Your task to perform on an android device: find photos in the google photos app Image 0: 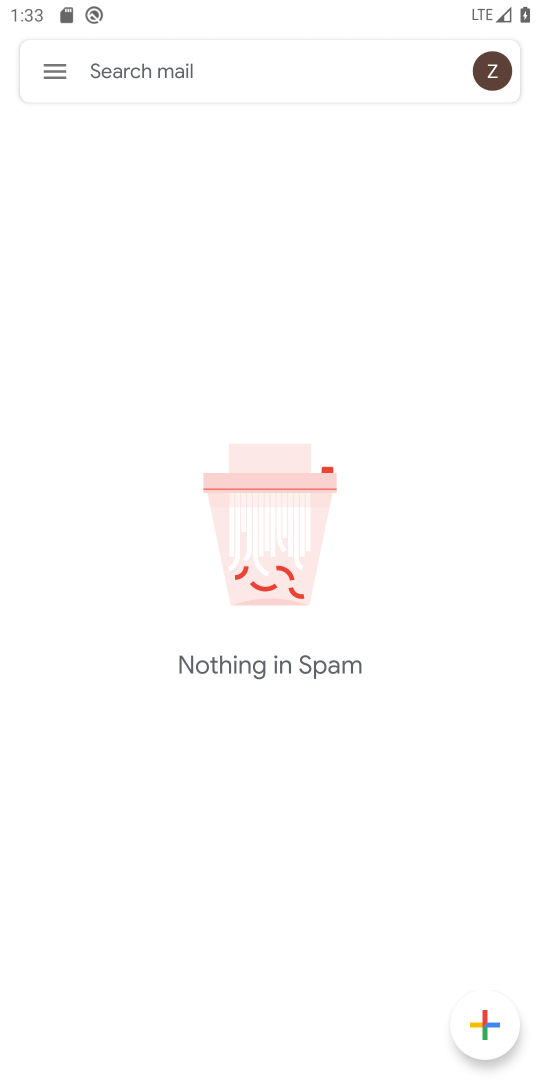
Step 0: press home button
Your task to perform on an android device: find photos in the google photos app Image 1: 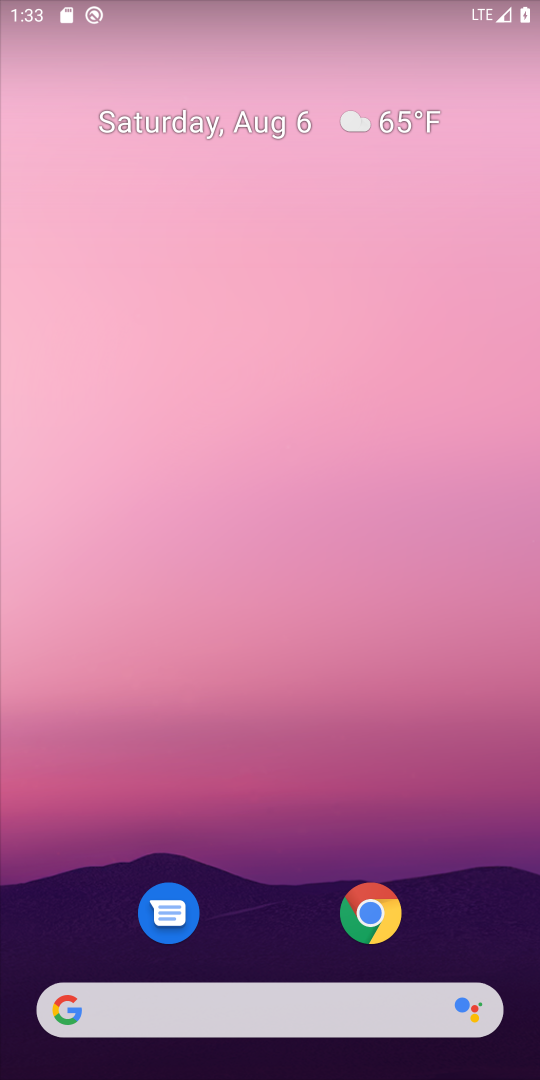
Step 1: drag from (411, 938) to (469, 232)
Your task to perform on an android device: find photos in the google photos app Image 2: 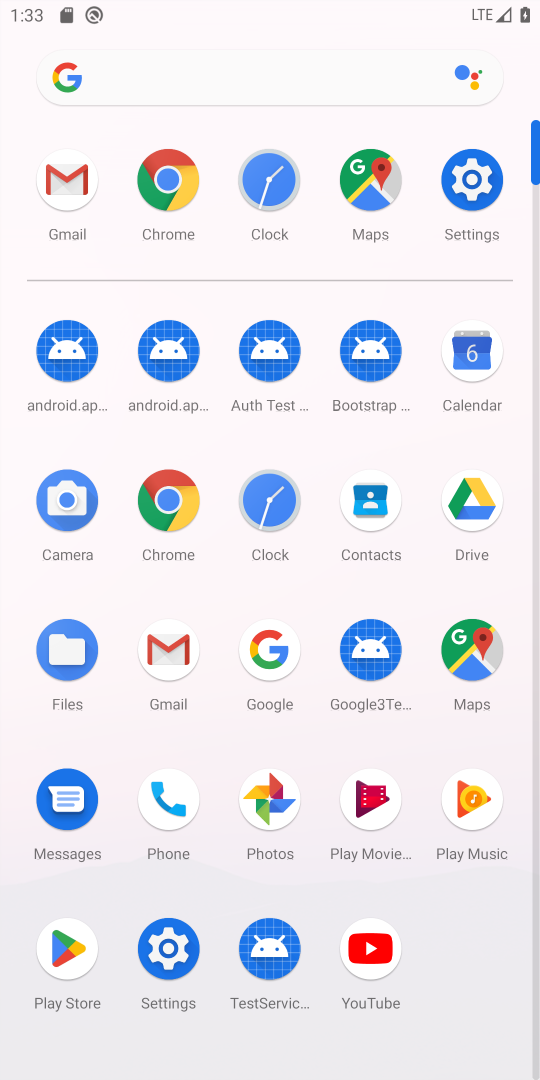
Step 2: click (249, 795)
Your task to perform on an android device: find photos in the google photos app Image 3: 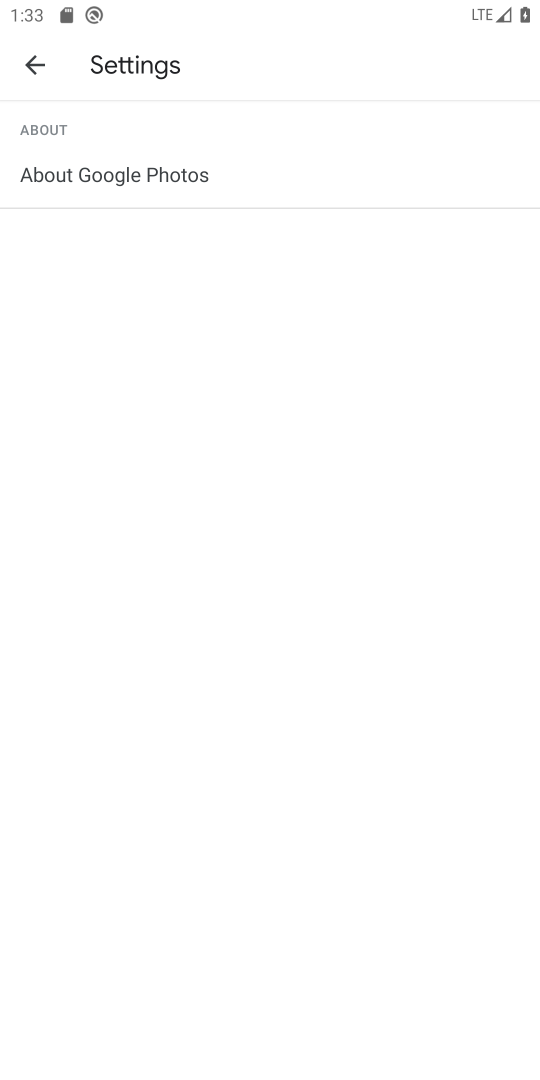
Step 3: press back button
Your task to perform on an android device: find photos in the google photos app Image 4: 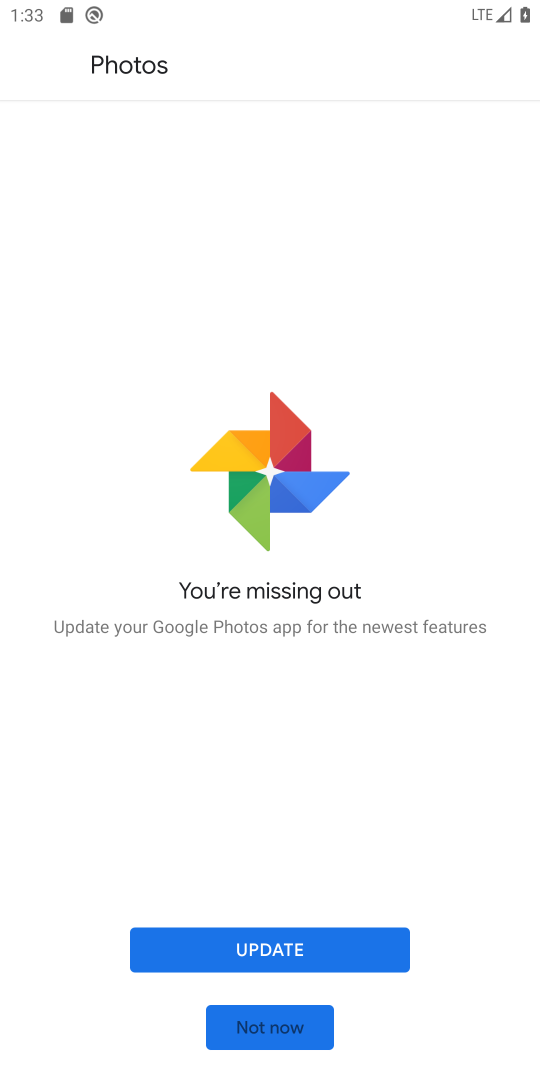
Step 4: click (286, 1022)
Your task to perform on an android device: find photos in the google photos app Image 5: 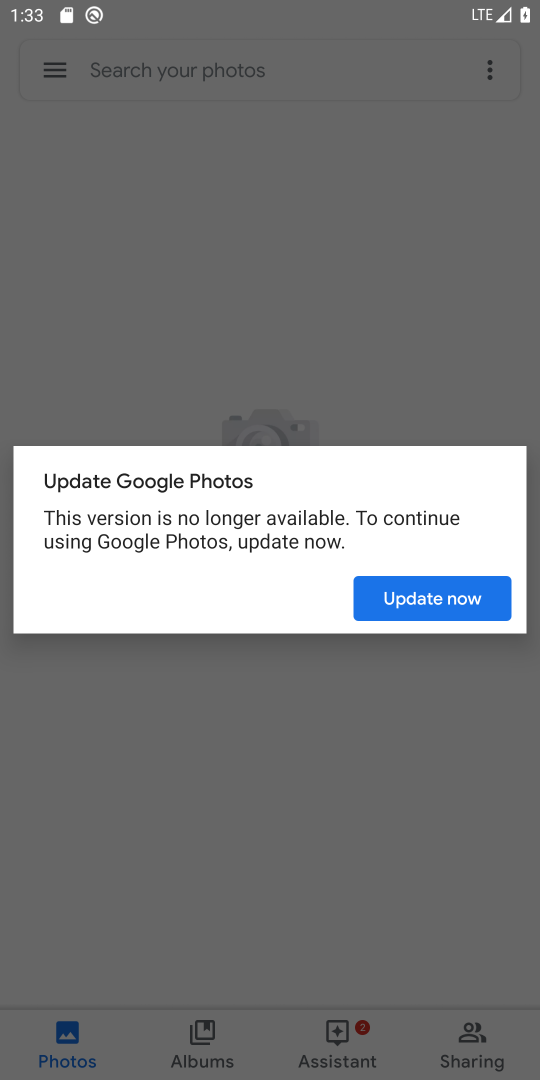
Step 5: click (446, 598)
Your task to perform on an android device: find photos in the google photos app Image 6: 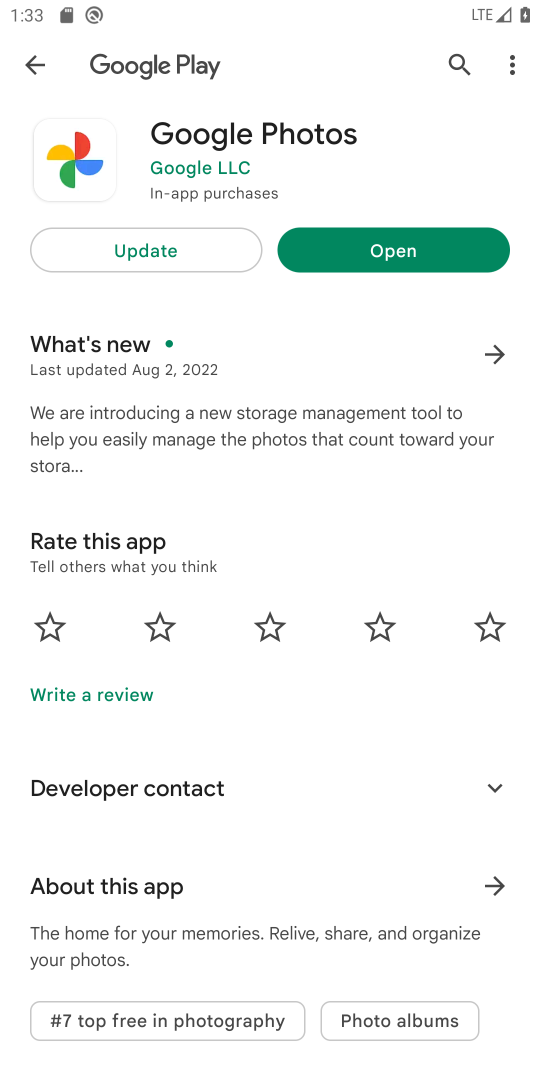
Step 6: click (148, 252)
Your task to perform on an android device: find photos in the google photos app Image 7: 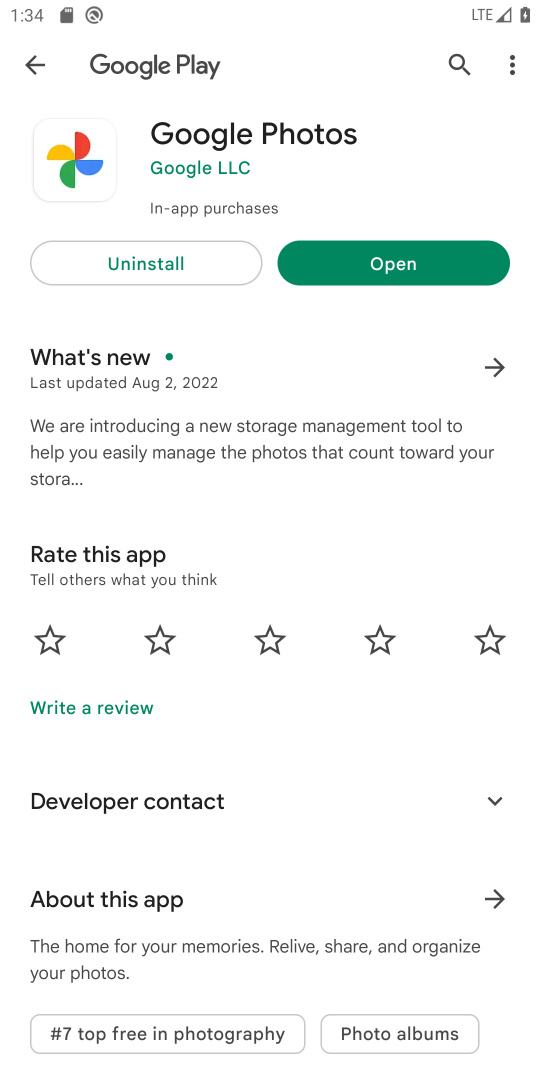
Step 7: click (469, 277)
Your task to perform on an android device: find photos in the google photos app Image 8: 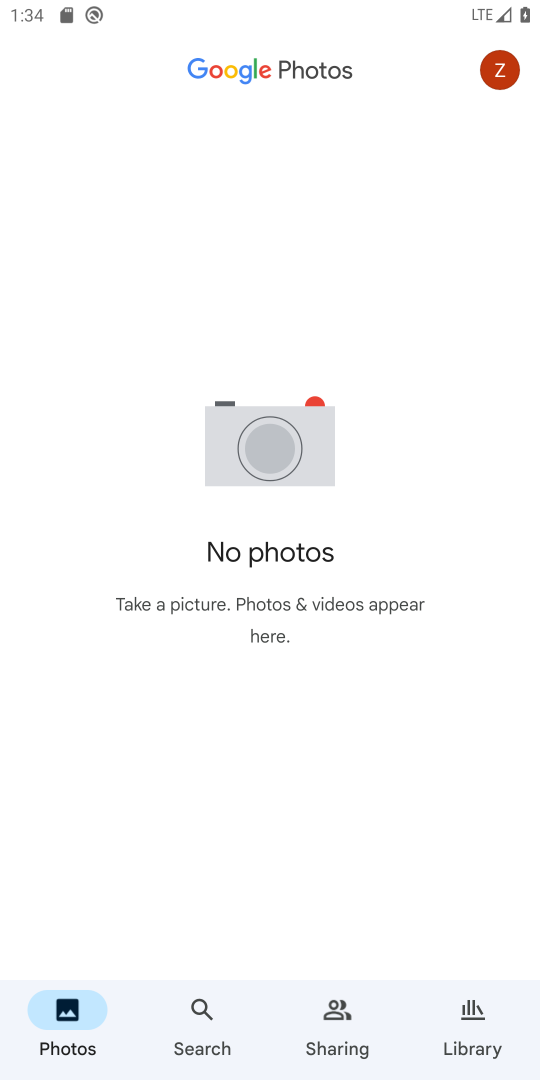
Step 8: task complete